Your task to perform on an android device: change the clock display to show seconds Image 0: 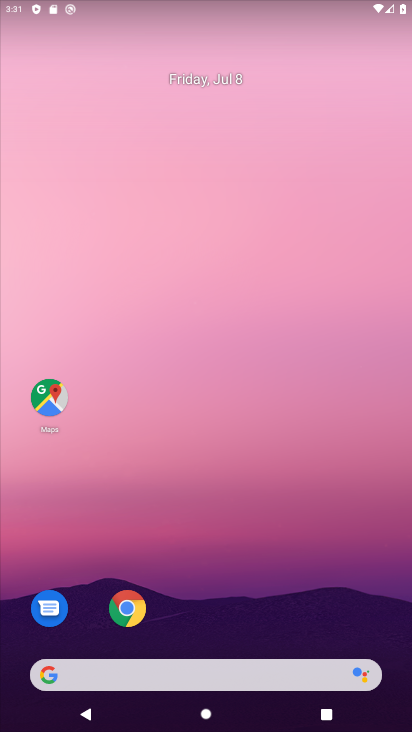
Step 0: drag from (271, 514) to (290, 33)
Your task to perform on an android device: change the clock display to show seconds Image 1: 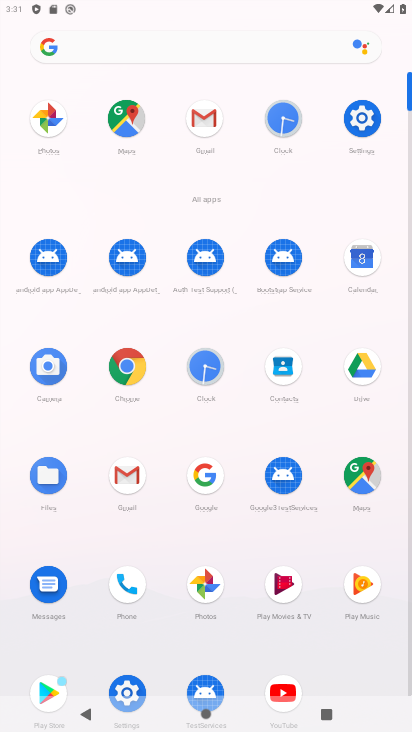
Step 1: click (279, 115)
Your task to perform on an android device: change the clock display to show seconds Image 2: 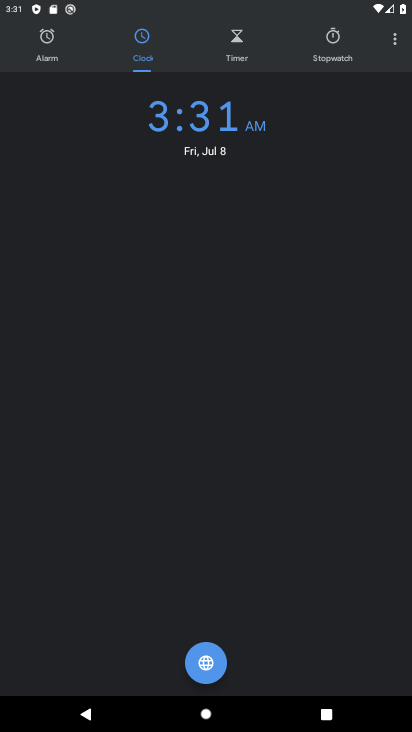
Step 2: click (392, 36)
Your task to perform on an android device: change the clock display to show seconds Image 3: 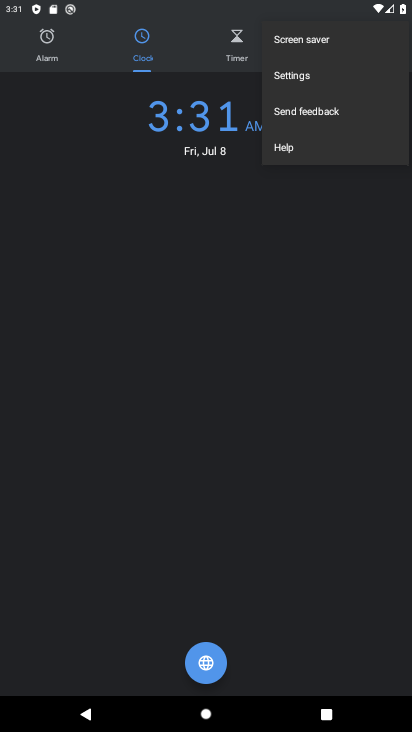
Step 3: click (299, 87)
Your task to perform on an android device: change the clock display to show seconds Image 4: 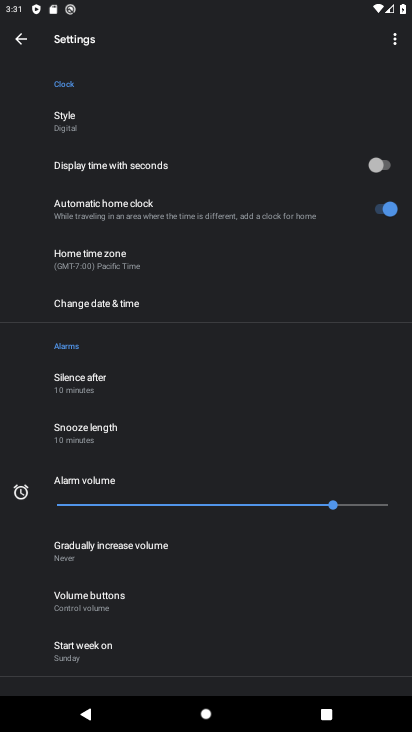
Step 4: click (65, 158)
Your task to perform on an android device: change the clock display to show seconds Image 5: 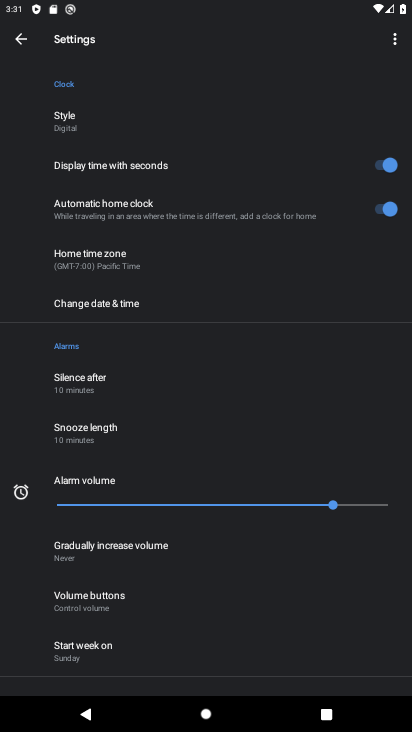
Step 5: task complete